Your task to perform on an android device: see sites visited before in the chrome app Image 0: 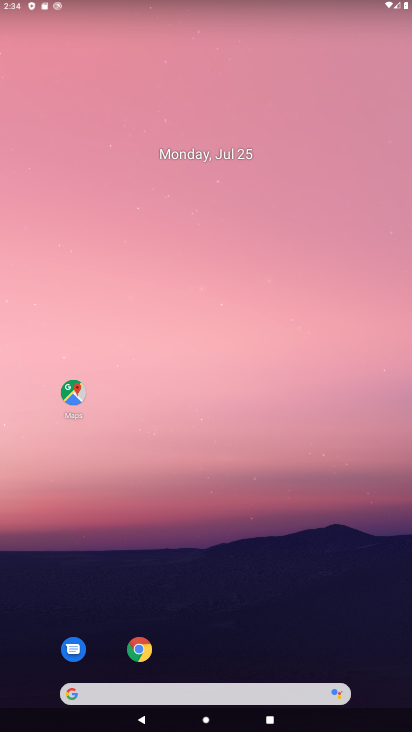
Step 0: click (128, 641)
Your task to perform on an android device: see sites visited before in the chrome app Image 1: 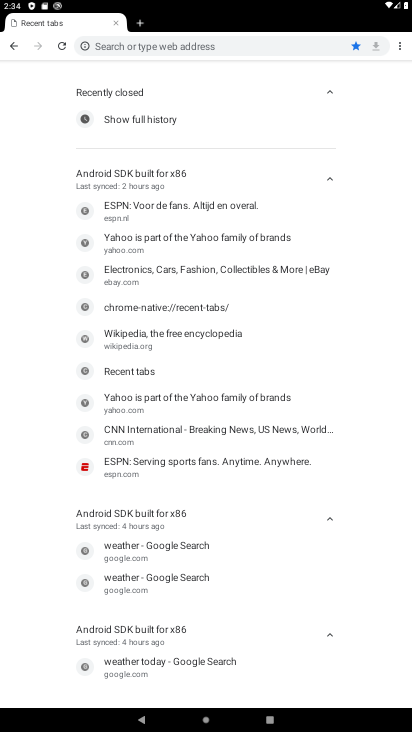
Step 1: task complete